Your task to perform on an android device: star an email in the gmail app Image 0: 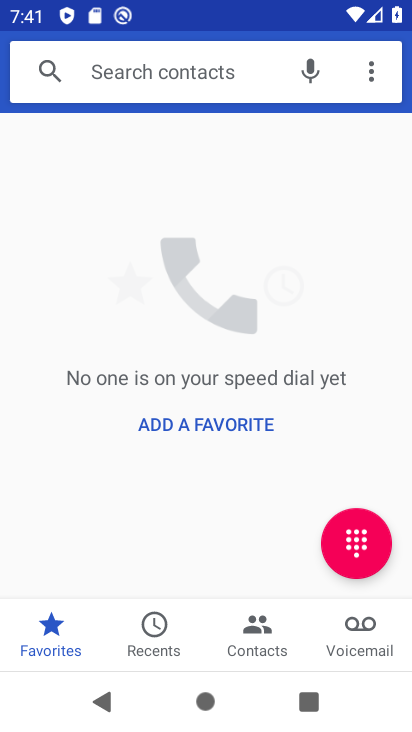
Step 0: press home button
Your task to perform on an android device: star an email in the gmail app Image 1: 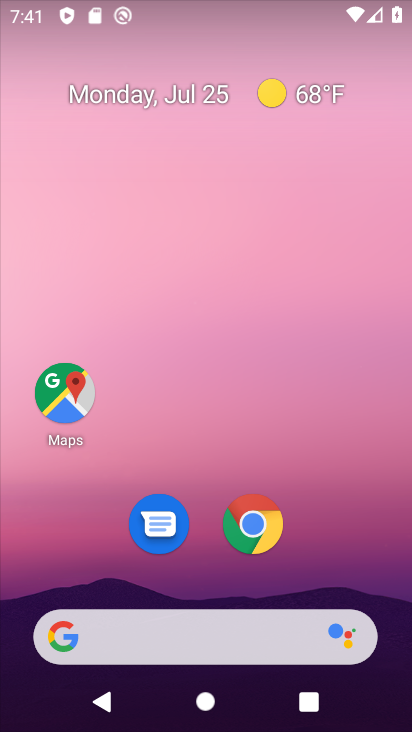
Step 1: drag from (336, 538) to (355, 66)
Your task to perform on an android device: star an email in the gmail app Image 2: 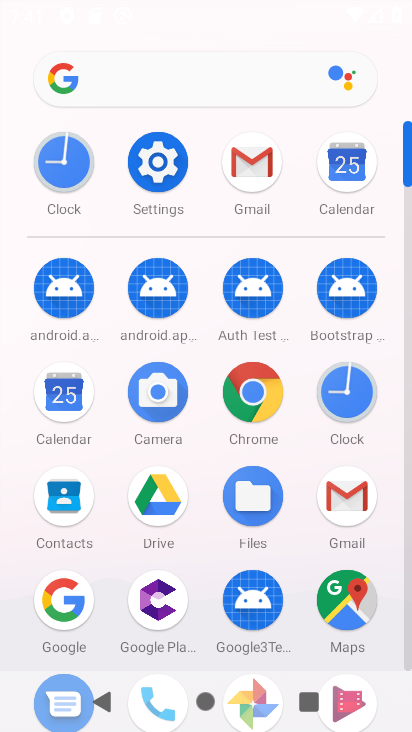
Step 2: click (267, 164)
Your task to perform on an android device: star an email in the gmail app Image 3: 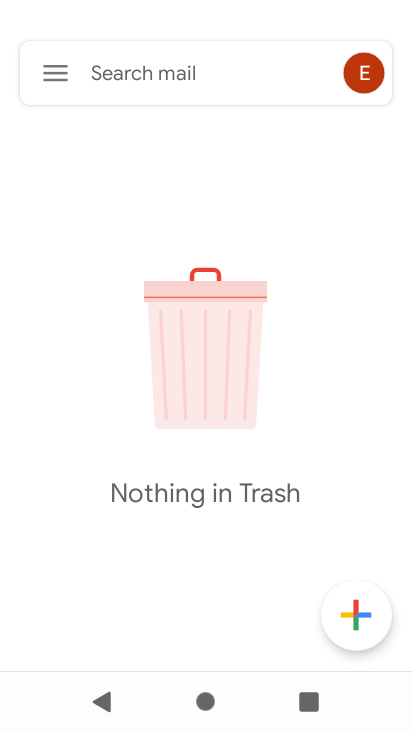
Step 3: click (59, 76)
Your task to perform on an android device: star an email in the gmail app Image 4: 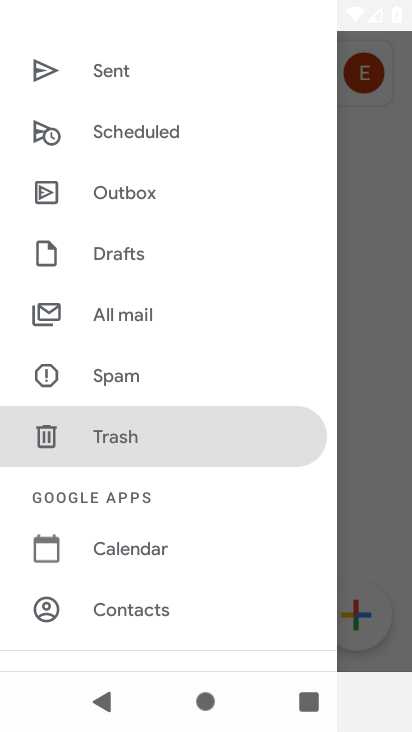
Step 4: drag from (205, 189) to (212, 571)
Your task to perform on an android device: star an email in the gmail app Image 5: 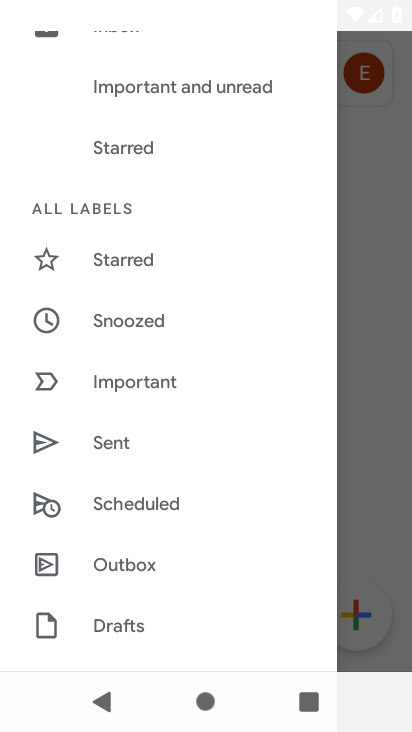
Step 5: drag from (168, 545) to (228, 257)
Your task to perform on an android device: star an email in the gmail app Image 6: 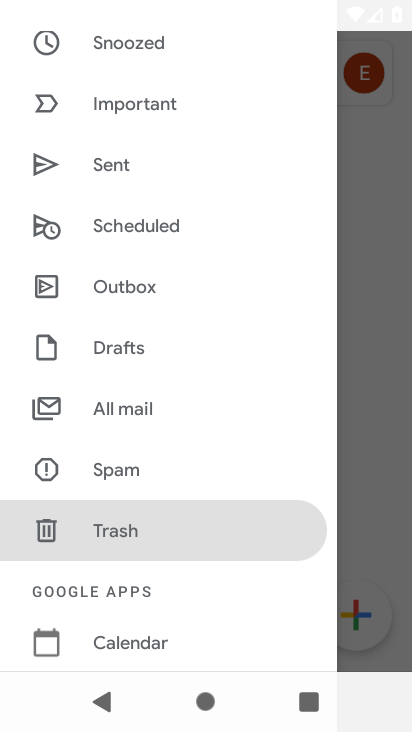
Step 6: click (139, 413)
Your task to perform on an android device: star an email in the gmail app Image 7: 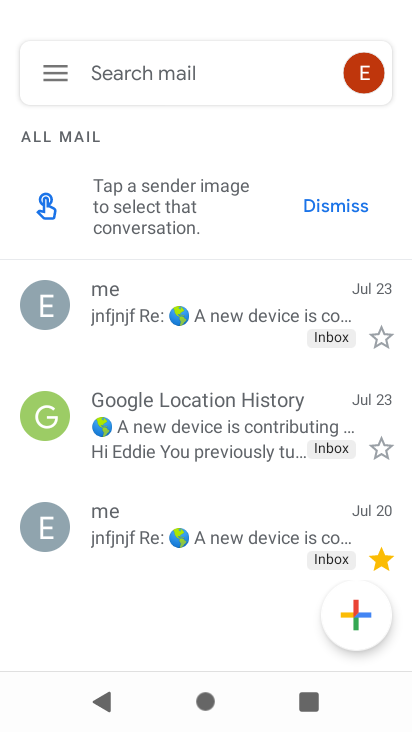
Step 7: click (380, 445)
Your task to perform on an android device: star an email in the gmail app Image 8: 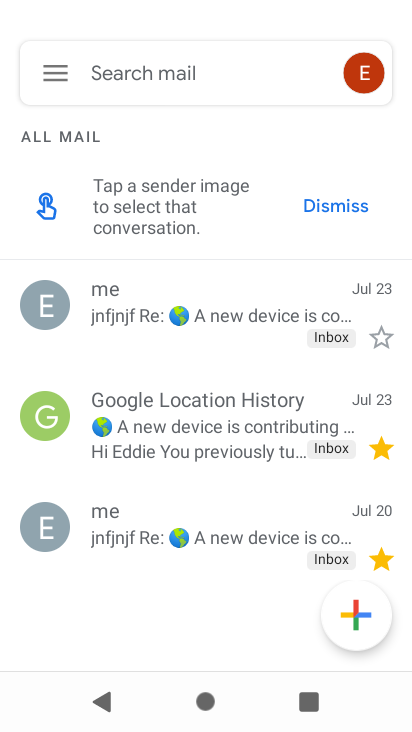
Step 8: task complete